Your task to perform on an android device: What's on my calendar tomorrow? Image 0: 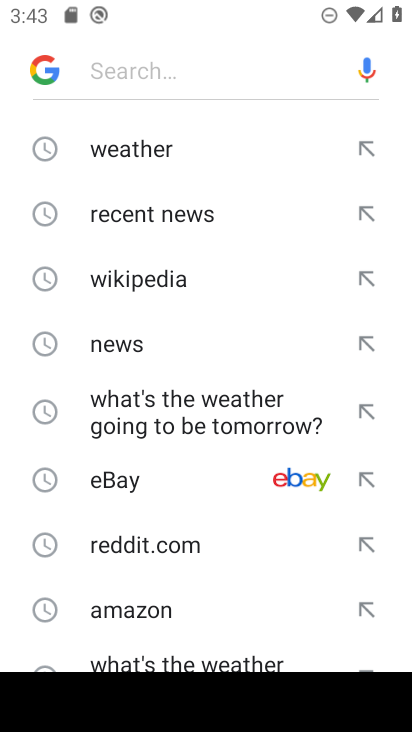
Step 0: press home button
Your task to perform on an android device: What's on my calendar tomorrow? Image 1: 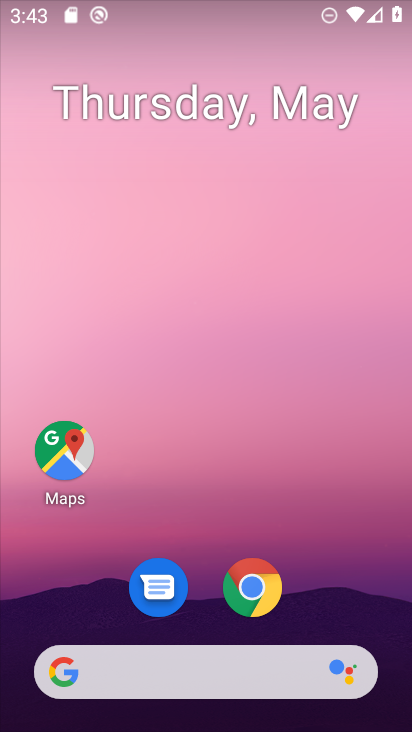
Step 1: drag from (366, 610) to (350, 143)
Your task to perform on an android device: What's on my calendar tomorrow? Image 2: 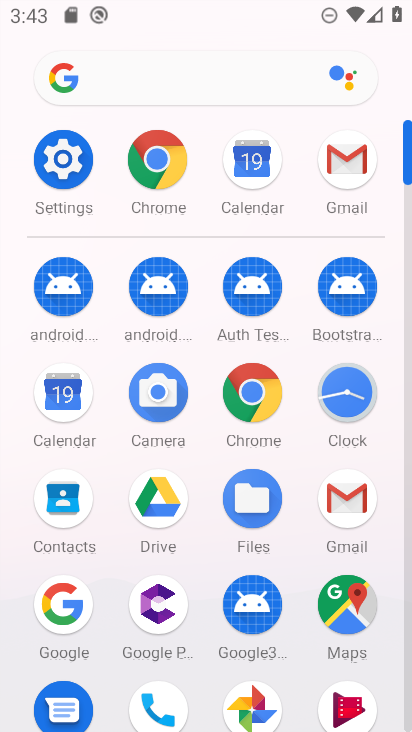
Step 2: click (67, 410)
Your task to perform on an android device: What's on my calendar tomorrow? Image 3: 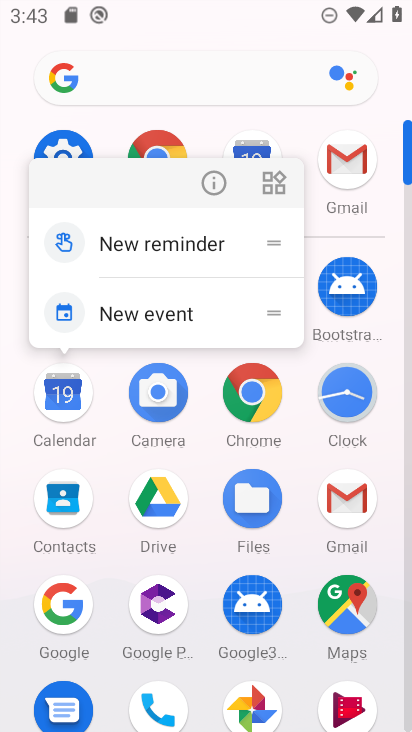
Step 3: click (67, 410)
Your task to perform on an android device: What's on my calendar tomorrow? Image 4: 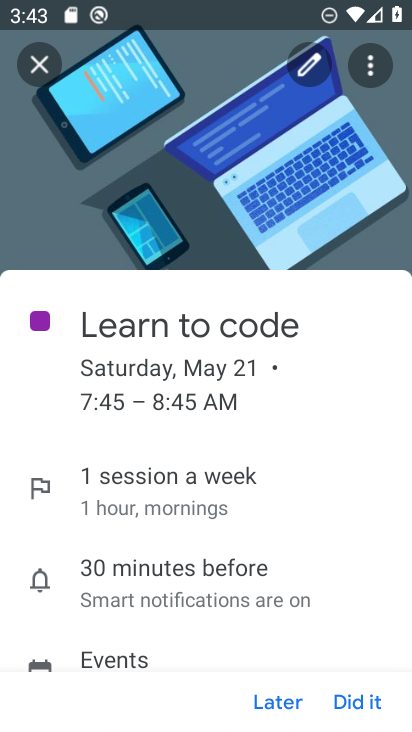
Step 4: click (38, 67)
Your task to perform on an android device: What's on my calendar tomorrow? Image 5: 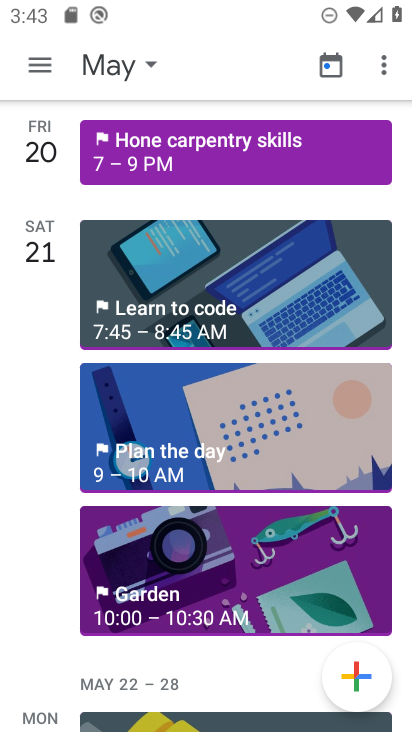
Step 5: click (280, 153)
Your task to perform on an android device: What's on my calendar tomorrow? Image 6: 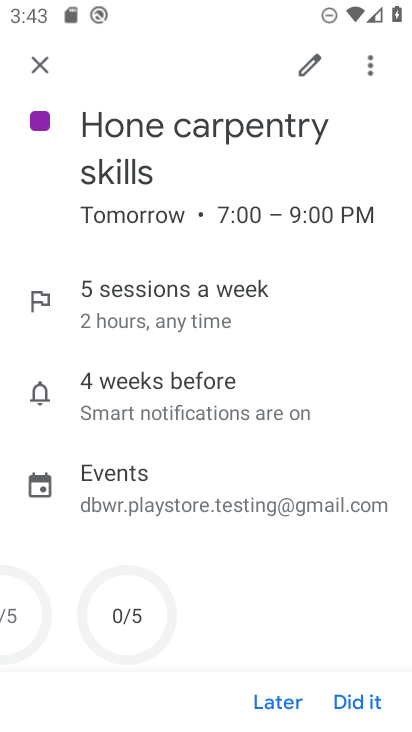
Step 6: task complete